Your task to perform on an android device: turn off airplane mode Image 0: 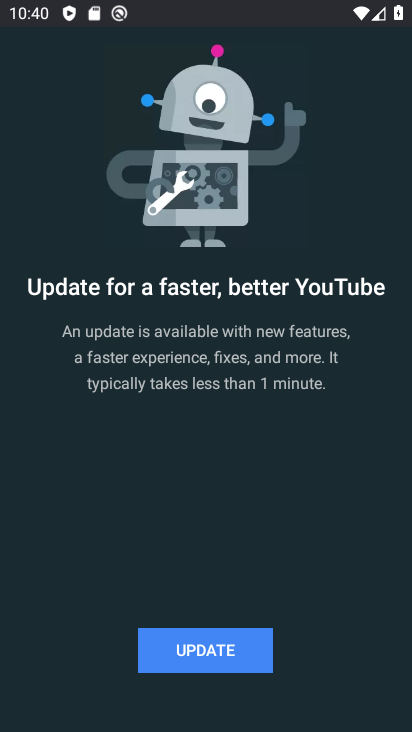
Step 0: press home button
Your task to perform on an android device: turn off airplane mode Image 1: 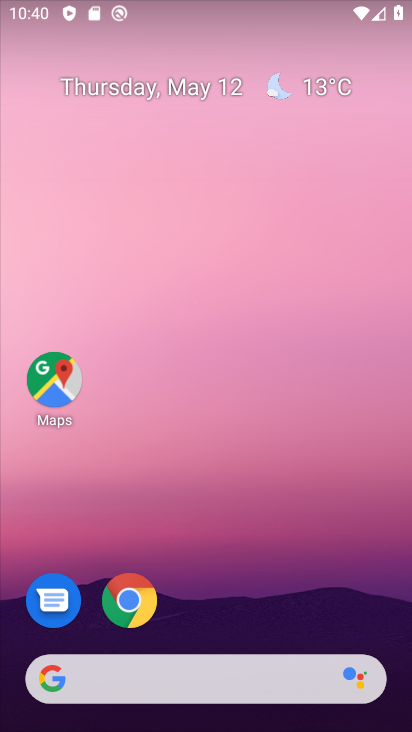
Step 1: drag from (388, 638) to (291, 147)
Your task to perform on an android device: turn off airplane mode Image 2: 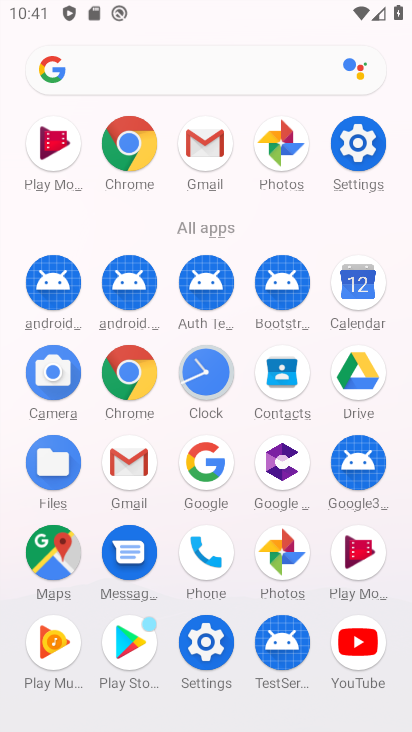
Step 2: click (205, 639)
Your task to perform on an android device: turn off airplane mode Image 3: 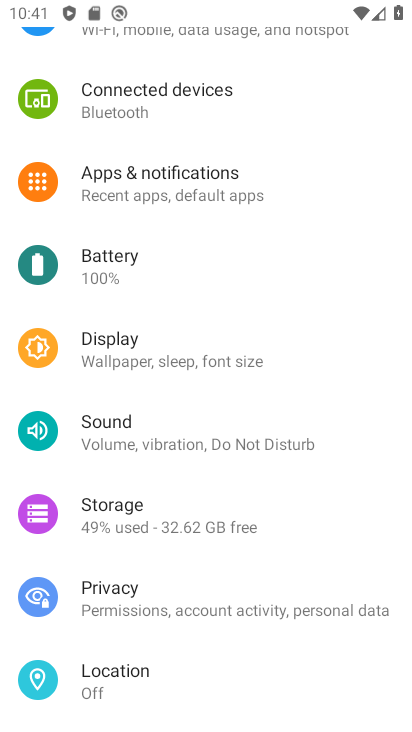
Step 3: drag from (381, 169) to (373, 462)
Your task to perform on an android device: turn off airplane mode Image 4: 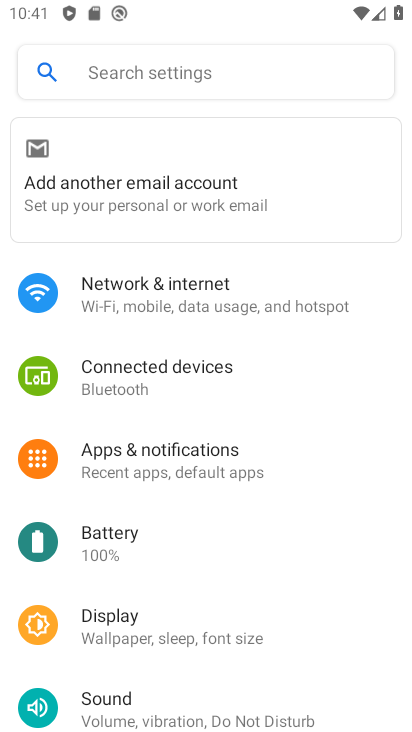
Step 4: click (125, 294)
Your task to perform on an android device: turn off airplane mode Image 5: 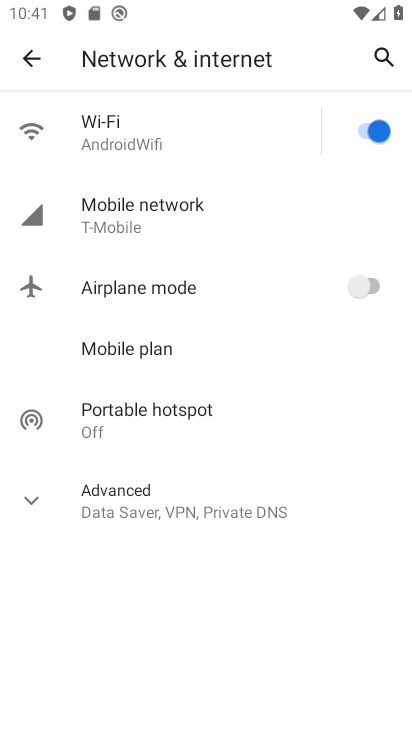
Step 5: task complete